Your task to perform on an android device: Go to settings Image 0: 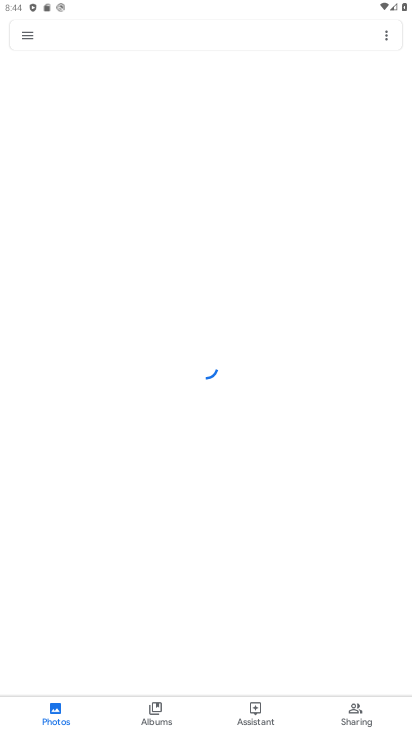
Step 0: press home button
Your task to perform on an android device: Go to settings Image 1: 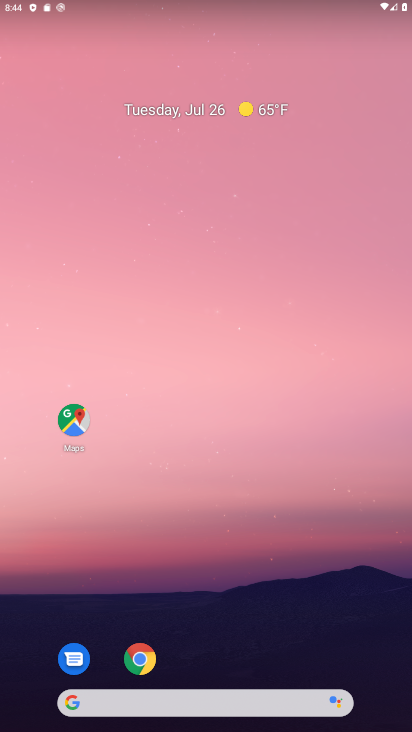
Step 1: drag from (196, 615) to (185, 172)
Your task to perform on an android device: Go to settings Image 2: 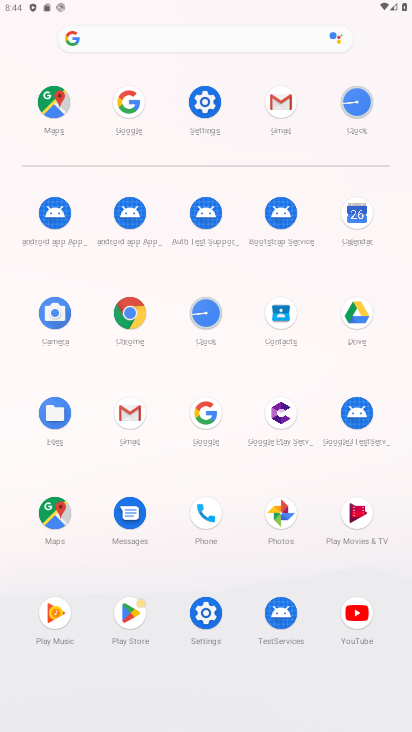
Step 2: click (213, 104)
Your task to perform on an android device: Go to settings Image 3: 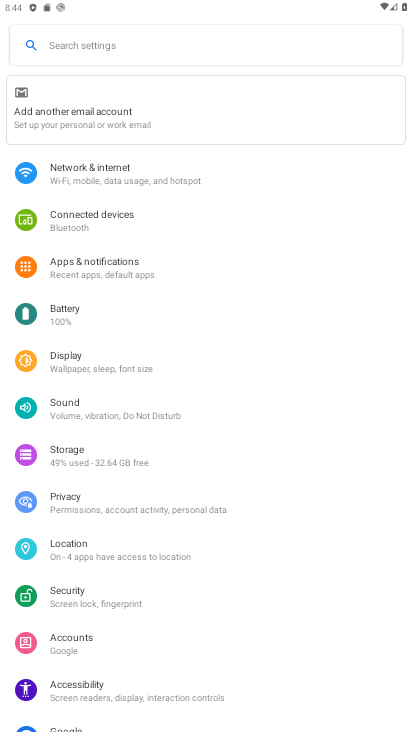
Step 3: task complete